Your task to perform on an android device: Search for Mexican restaurants on Maps Image 0: 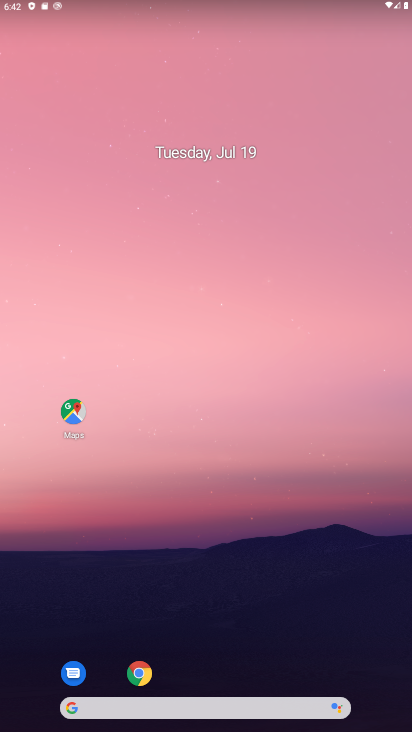
Step 0: drag from (386, 679) to (228, 109)
Your task to perform on an android device: Search for Mexican restaurants on Maps Image 1: 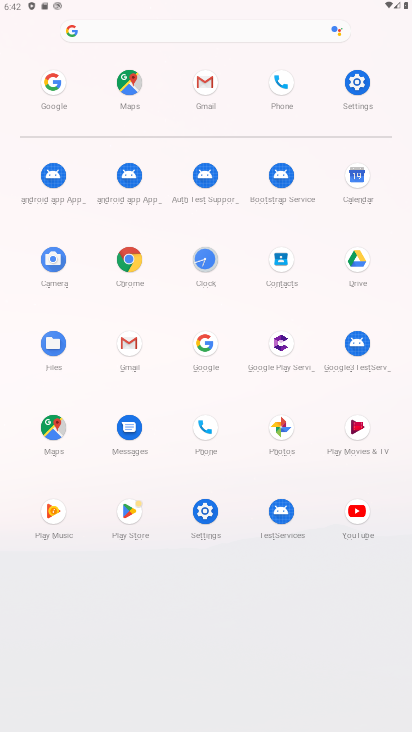
Step 1: click (55, 436)
Your task to perform on an android device: Search for Mexican restaurants on Maps Image 2: 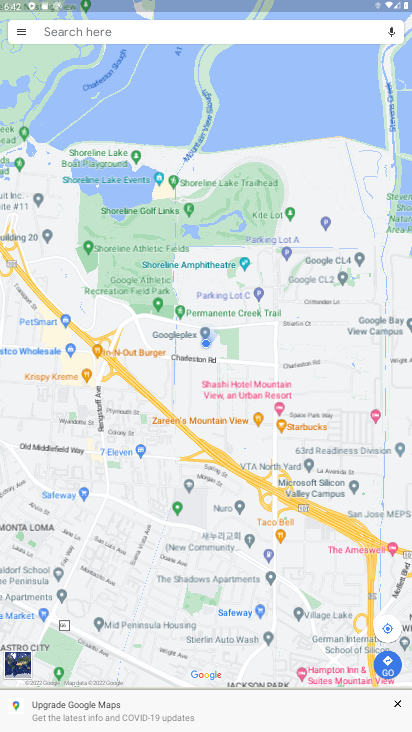
Step 2: click (87, 36)
Your task to perform on an android device: Search for Mexican restaurants on Maps Image 3: 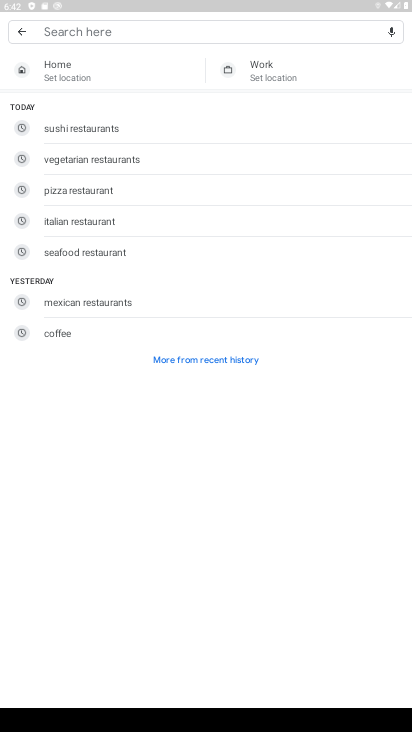
Step 3: click (89, 303)
Your task to perform on an android device: Search for Mexican restaurants on Maps Image 4: 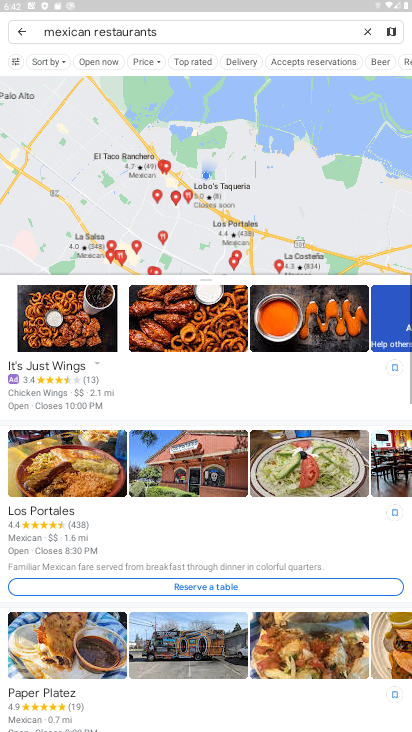
Step 4: task complete